Your task to perform on an android device: toggle translation in the chrome app Image 0: 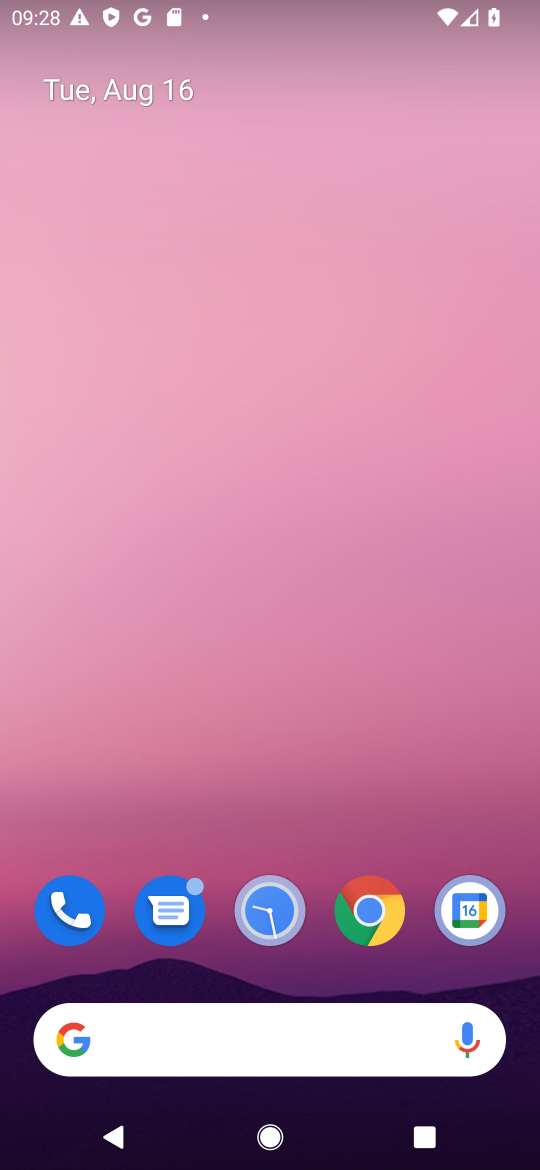
Step 0: click (376, 914)
Your task to perform on an android device: toggle translation in the chrome app Image 1: 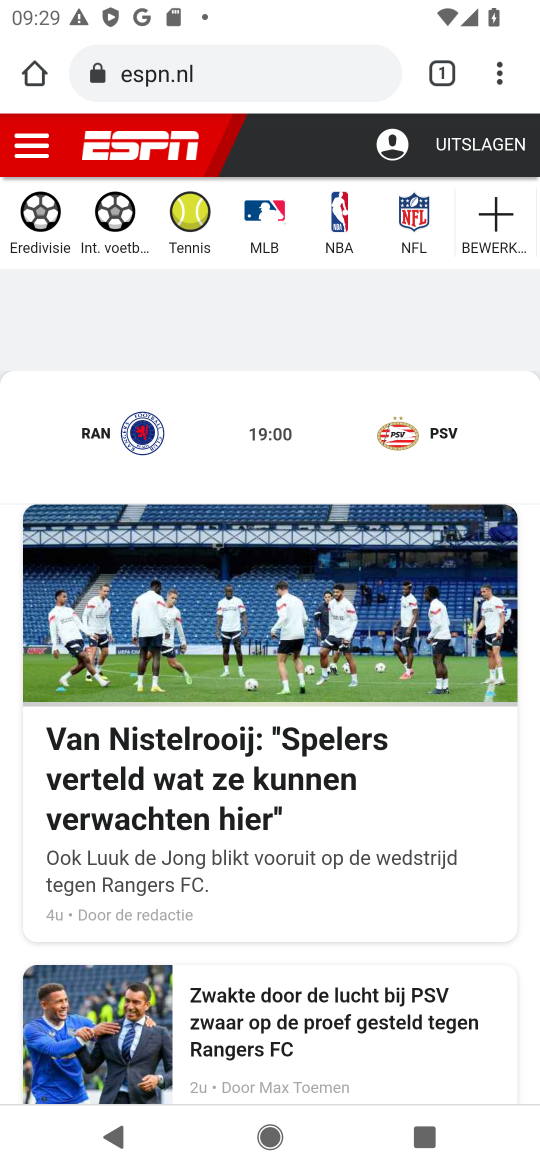
Step 1: click (499, 70)
Your task to perform on an android device: toggle translation in the chrome app Image 2: 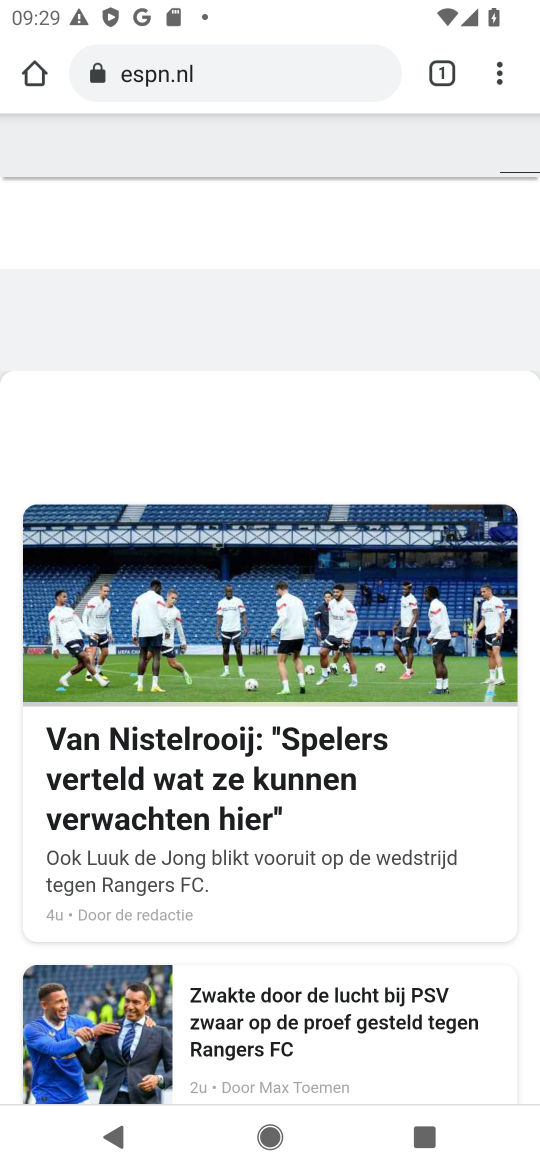
Step 2: click (499, 72)
Your task to perform on an android device: toggle translation in the chrome app Image 3: 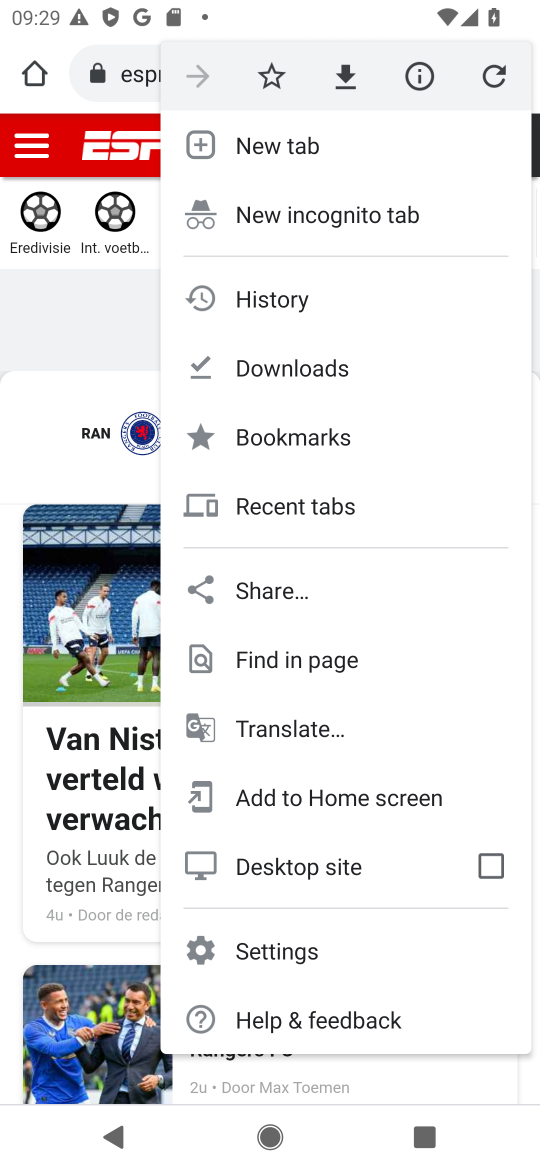
Step 3: click (297, 945)
Your task to perform on an android device: toggle translation in the chrome app Image 4: 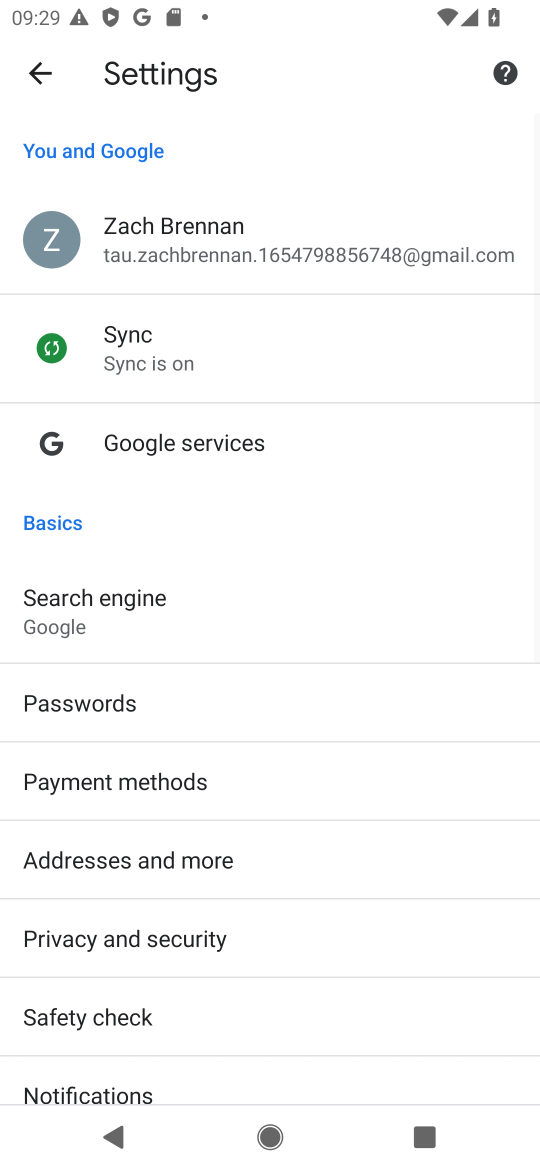
Step 4: drag from (297, 935) to (381, 158)
Your task to perform on an android device: toggle translation in the chrome app Image 5: 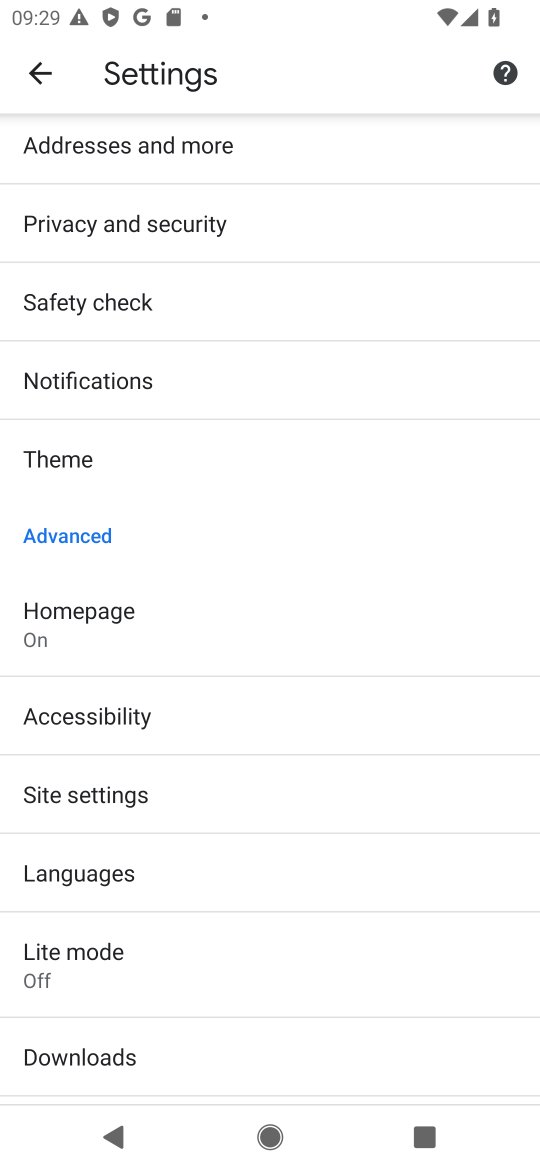
Step 5: click (218, 882)
Your task to perform on an android device: toggle translation in the chrome app Image 6: 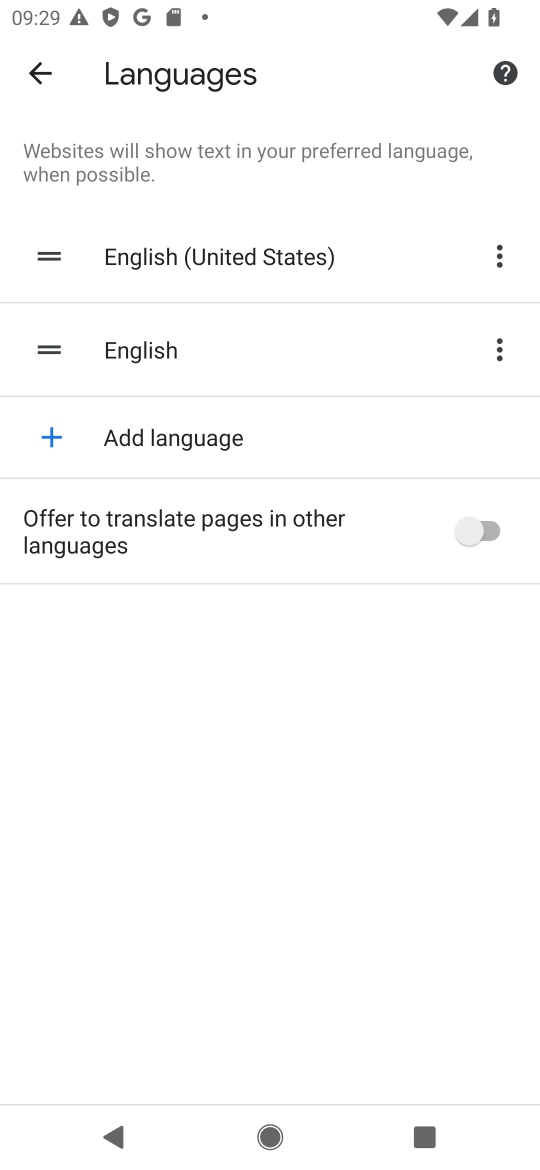
Step 6: click (477, 524)
Your task to perform on an android device: toggle translation in the chrome app Image 7: 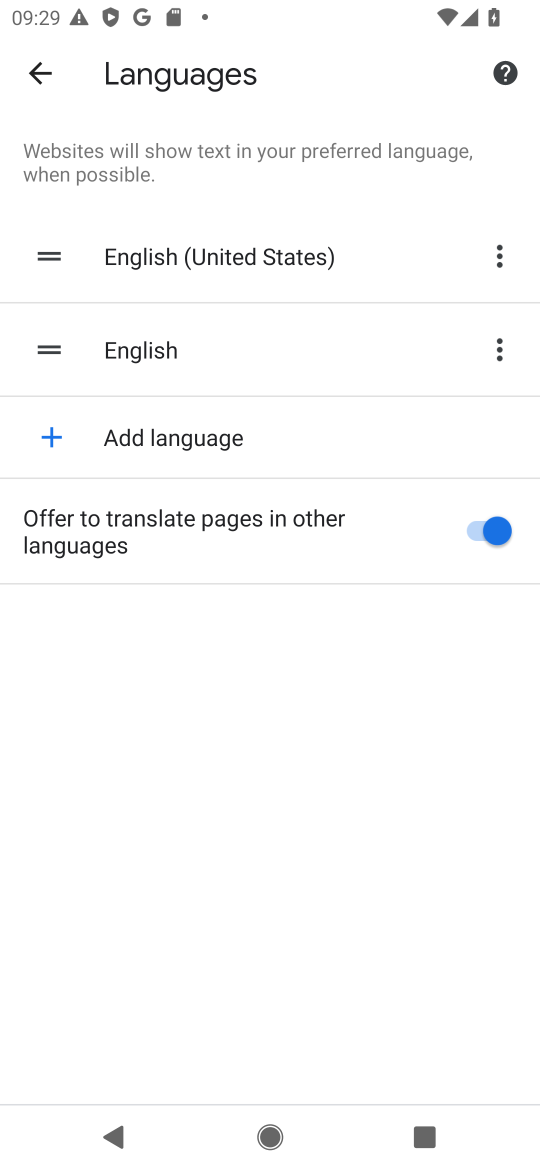
Step 7: task complete